Your task to perform on an android device: Search for "razer deathadder" on target, select the first entry, add it to the cart, then select checkout. Image 0: 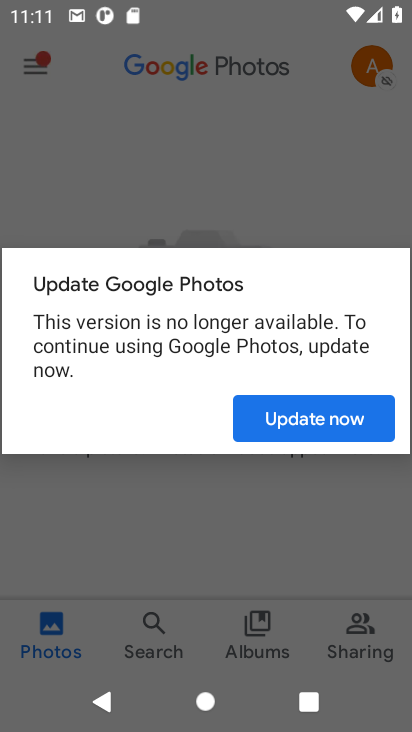
Step 0: press home button
Your task to perform on an android device: Search for "razer deathadder" on target, select the first entry, add it to the cart, then select checkout. Image 1: 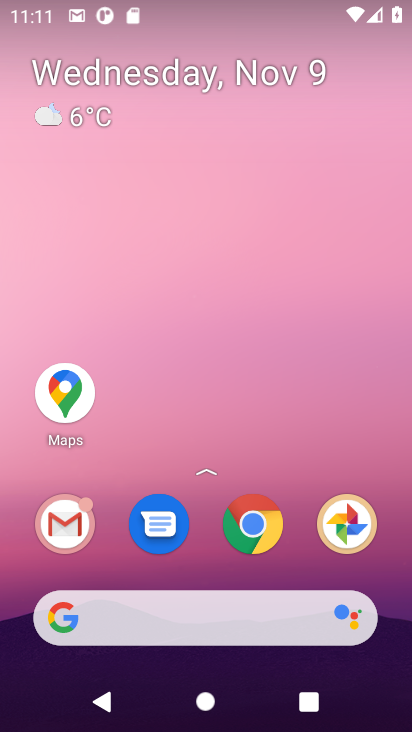
Step 1: click (252, 520)
Your task to perform on an android device: Search for "razer deathadder" on target, select the first entry, add it to the cart, then select checkout. Image 2: 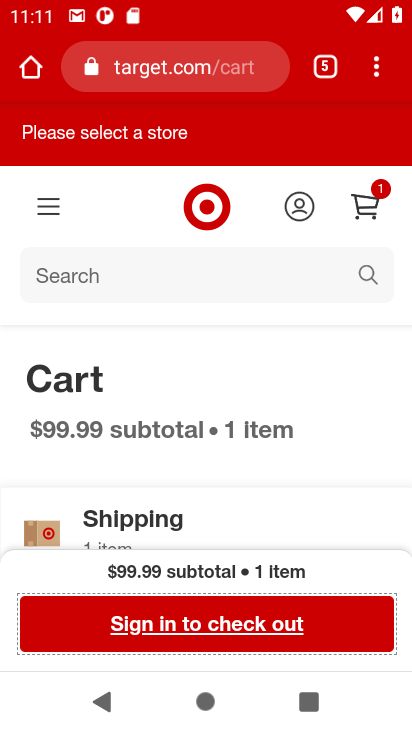
Step 2: click (76, 275)
Your task to perform on an android device: Search for "razer deathadder" on target, select the first entry, add it to the cart, then select checkout. Image 3: 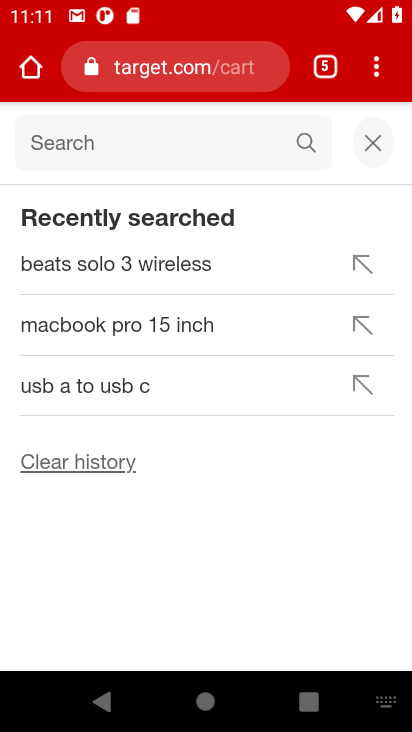
Step 3: type "razer deathadder"
Your task to perform on an android device: Search for "razer deathadder" on target, select the first entry, add it to the cart, then select checkout. Image 4: 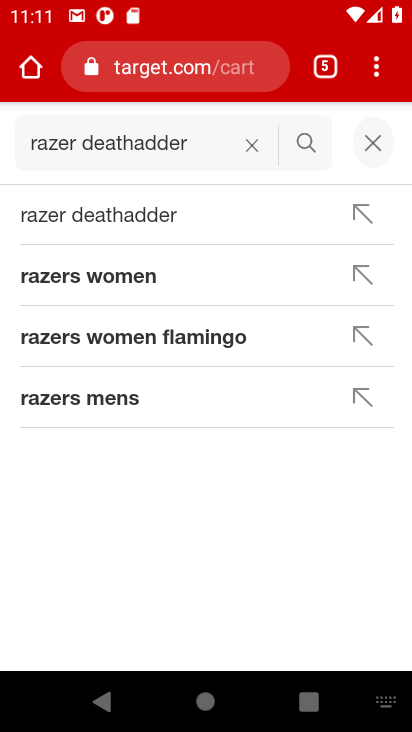
Step 4: click (163, 217)
Your task to perform on an android device: Search for "razer deathadder" on target, select the first entry, add it to the cart, then select checkout. Image 5: 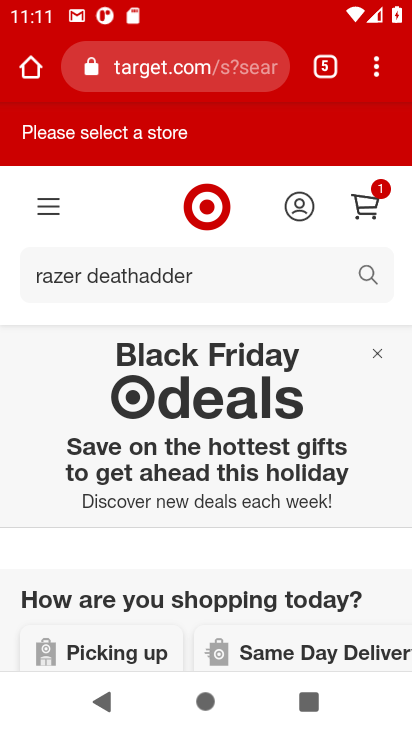
Step 5: drag from (232, 602) to (396, 66)
Your task to perform on an android device: Search for "razer deathadder" on target, select the first entry, add it to the cart, then select checkout. Image 6: 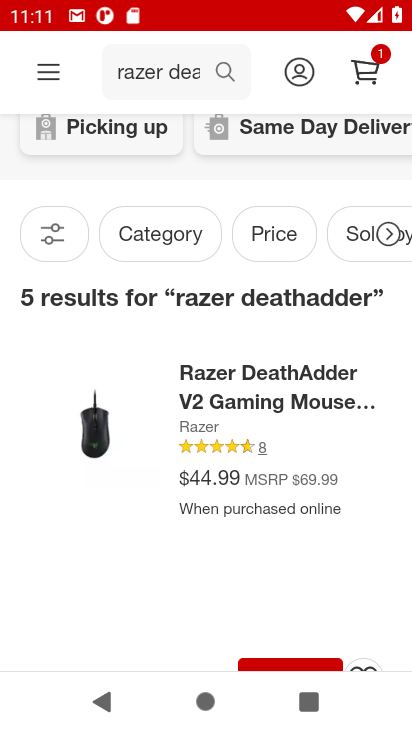
Step 6: drag from (222, 516) to (304, 257)
Your task to perform on an android device: Search for "razer deathadder" on target, select the first entry, add it to the cart, then select checkout. Image 7: 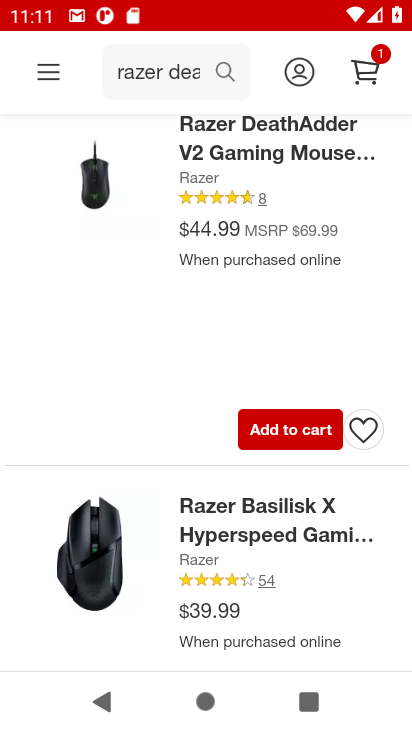
Step 7: click (309, 421)
Your task to perform on an android device: Search for "razer deathadder" on target, select the first entry, add it to the cart, then select checkout. Image 8: 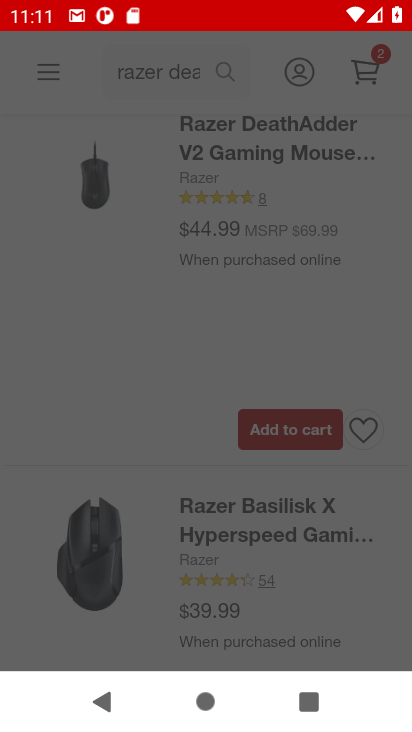
Step 8: task complete